Your task to perform on an android device: turn off notifications in google photos Image 0: 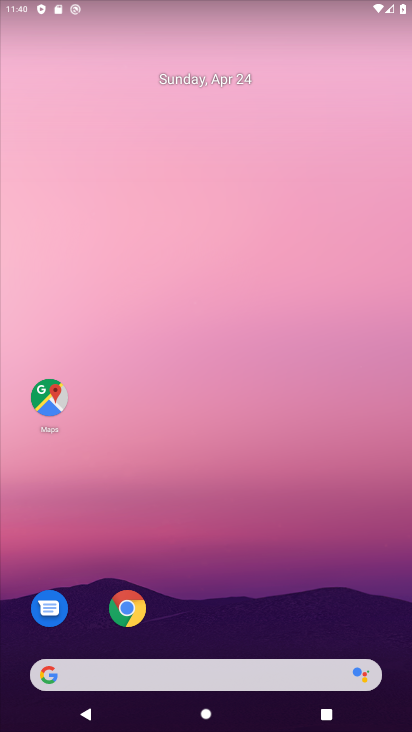
Step 0: drag from (238, 723) to (244, 151)
Your task to perform on an android device: turn off notifications in google photos Image 1: 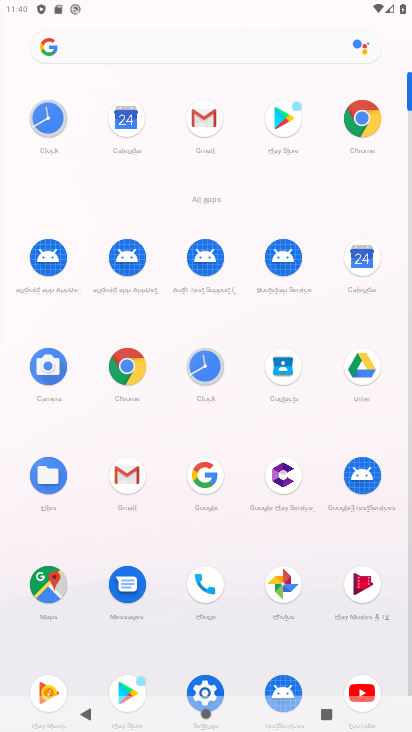
Step 1: click (285, 578)
Your task to perform on an android device: turn off notifications in google photos Image 2: 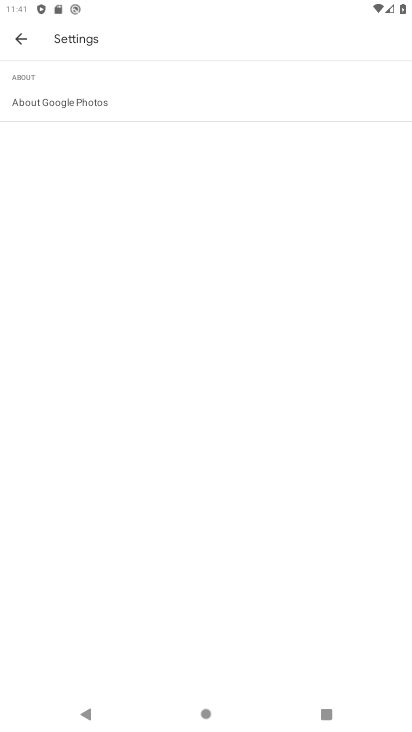
Step 2: click (19, 32)
Your task to perform on an android device: turn off notifications in google photos Image 3: 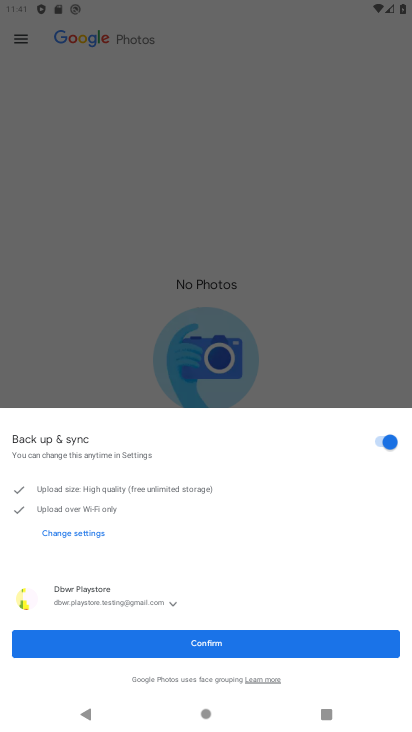
Step 3: click (202, 640)
Your task to perform on an android device: turn off notifications in google photos Image 4: 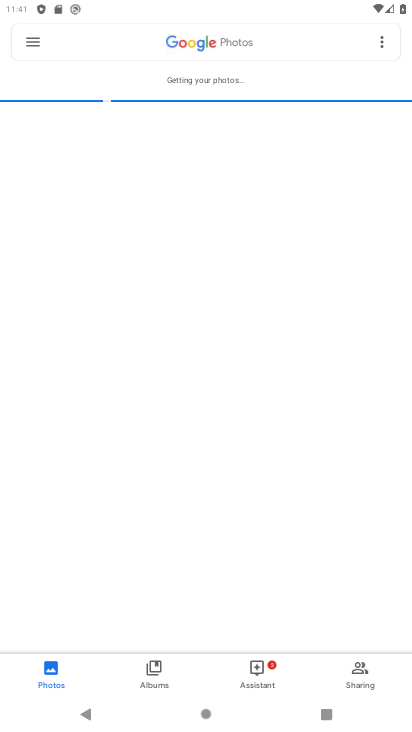
Step 4: click (29, 38)
Your task to perform on an android device: turn off notifications in google photos Image 5: 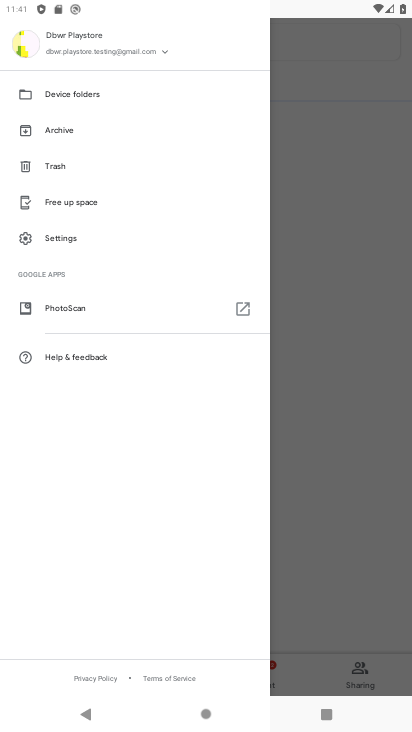
Step 5: click (60, 240)
Your task to perform on an android device: turn off notifications in google photos Image 6: 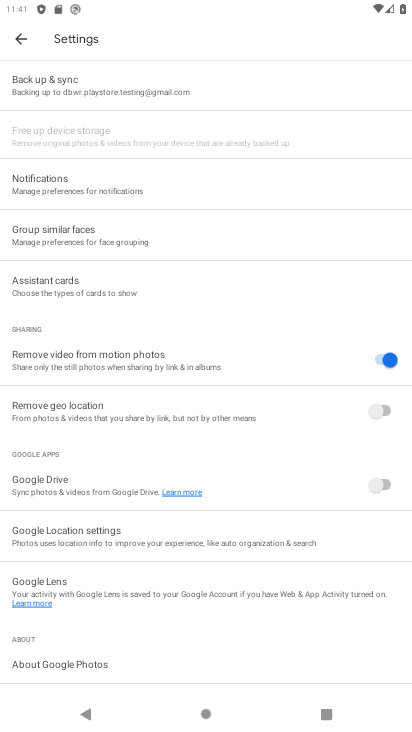
Step 6: click (81, 188)
Your task to perform on an android device: turn off notifications in google photos Image 7: 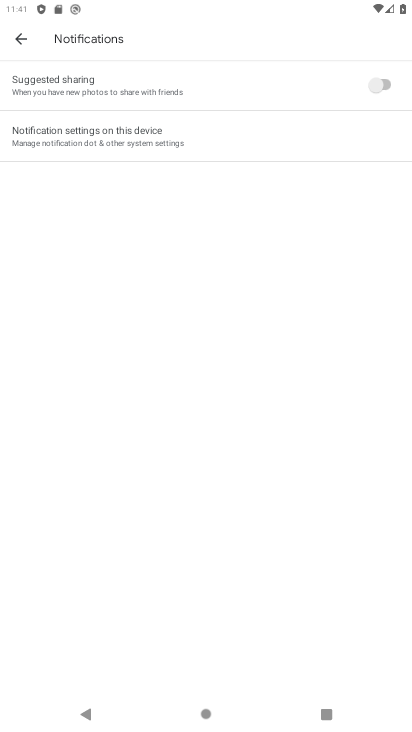
Step 7: click (146, 140)
Your task to perform on an android device: turn off notifications in google photos Image 8: 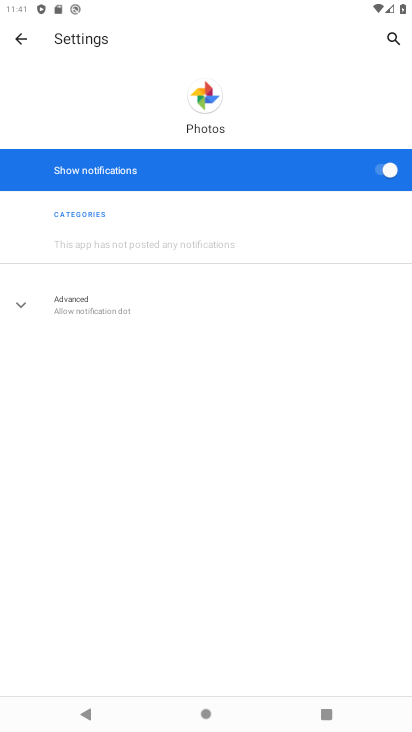
Step 8: click (378, 169)
Your task to perform on an android device: turn off notifications in google photos Image 9: 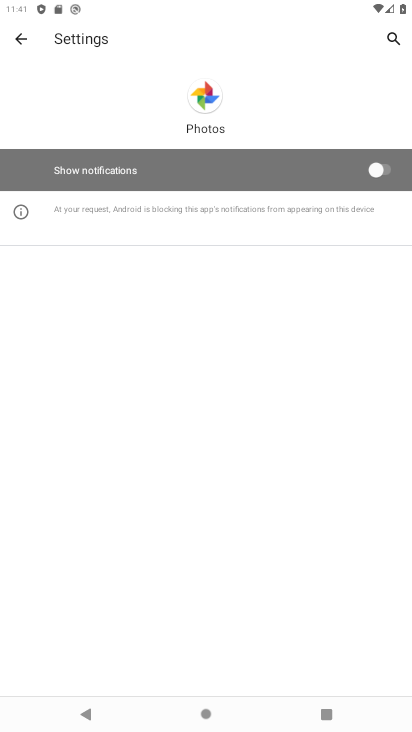
Step 9: task complete